Your task to perform on an android device: turn on location history Image 0: 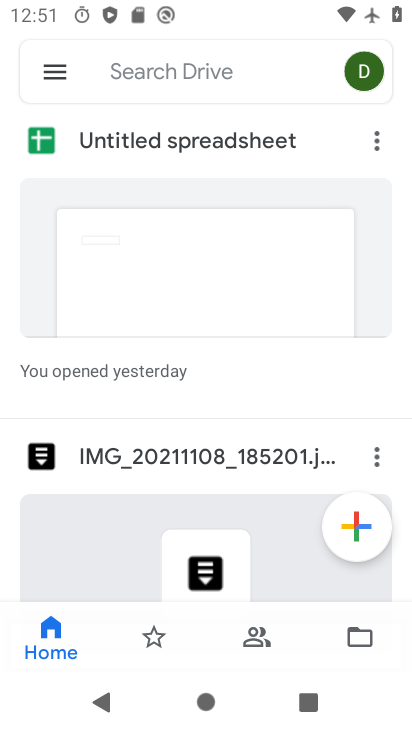
Step 0: press home button
Your task to perform on an android device: turn on location history Image 1: 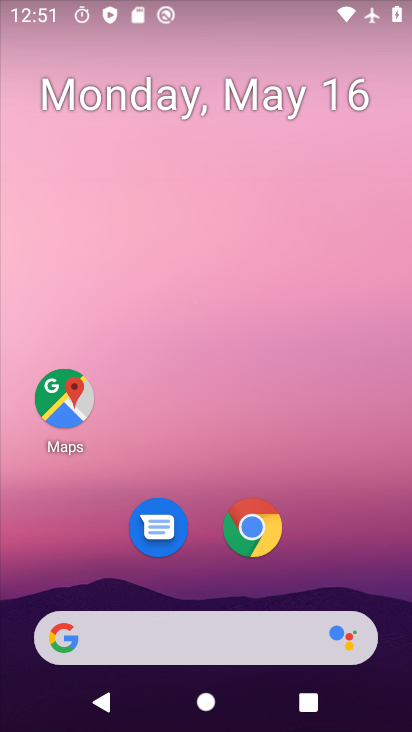
Step 1: drag from (128, 638) to (305, 116)
Your task to perform on an android device: turn on location history Image 2: 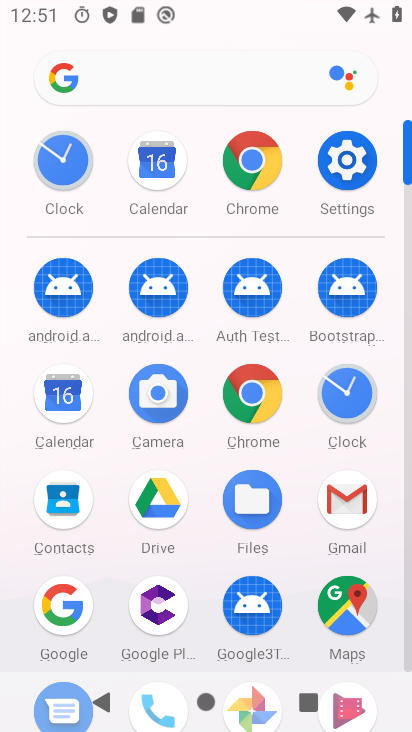
Step 2: click (339, 181)
Your task to perform on an android device: turn on location history Image 3: 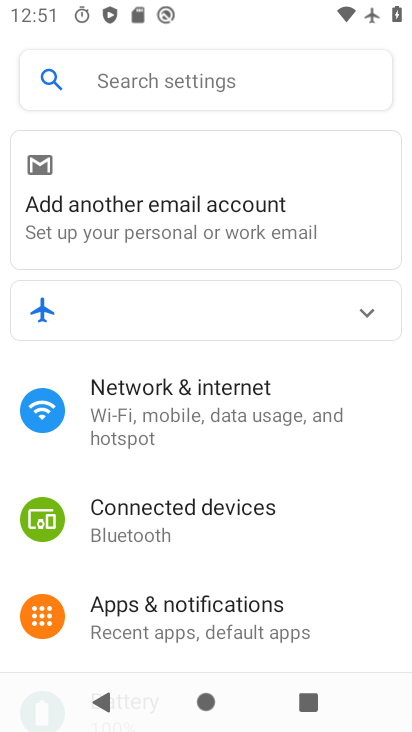
Step 3: drag from (189, 649) to (382, 132)
Your task to perform on an android device: turn on location history Image 4: 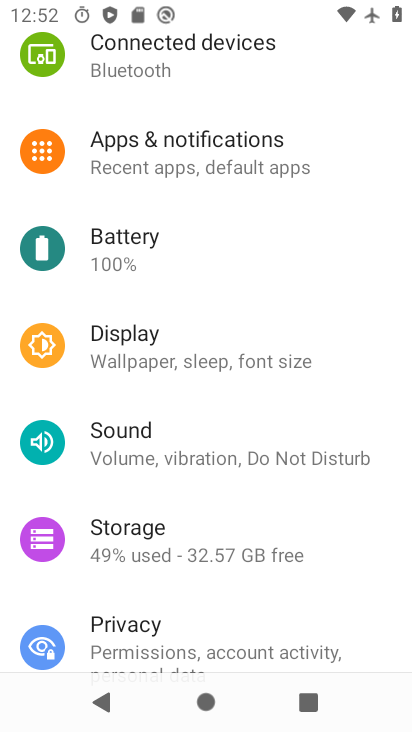
Step 4: drag from (184, 613) to (325, 150)
Your task to perform on an android device: turn on location history Image 5: 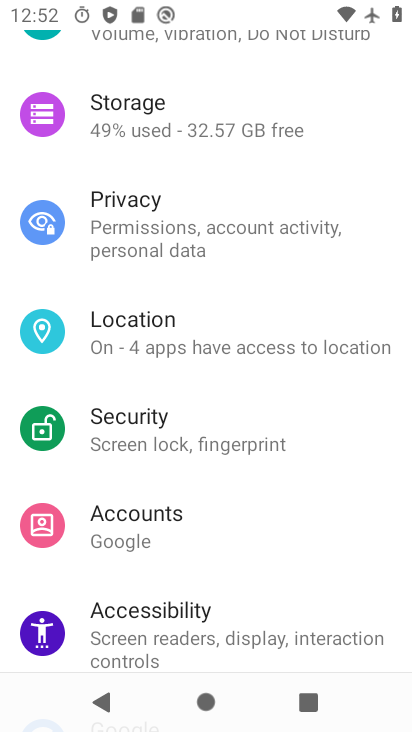
Step 5: click (141, 324)
Your task to perform on an android device: turn on location history Image 6: 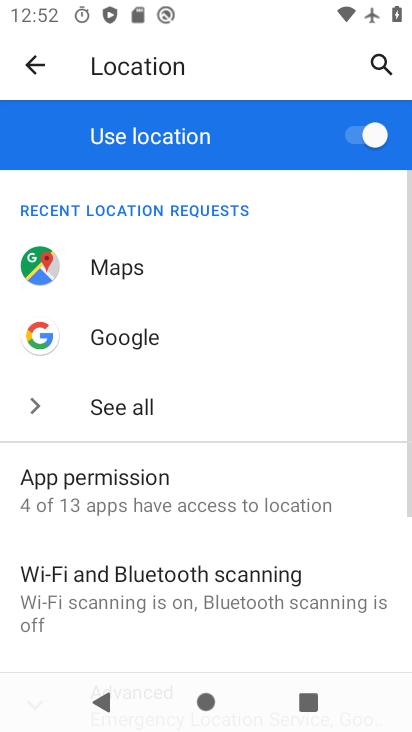
Step 6: drag from (171, 617) to (327, 218)
Your task to perform on an android device: turn on location history Image 7: 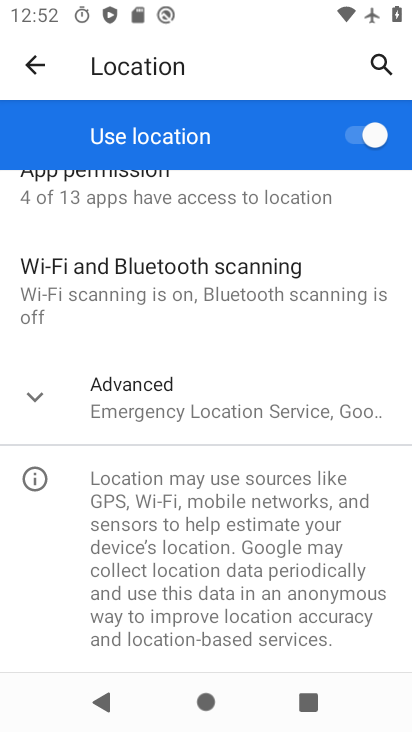
Step 7: click (165, 391)
Your task to perform on an android device: turn on location history Image 8: 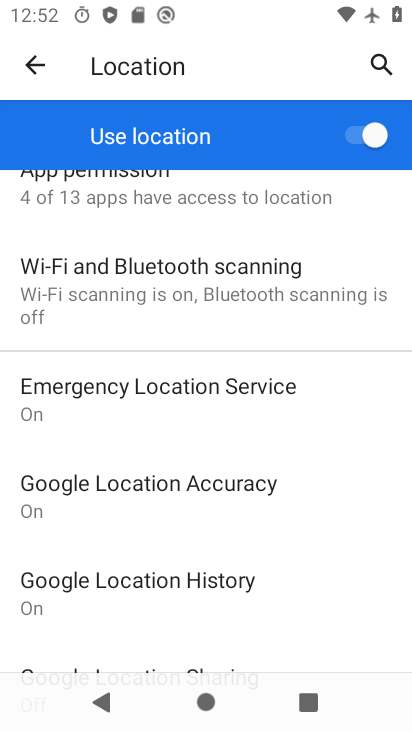
Step 8: click (177, 584)
Your task to perform on an android device: turn on location history Image 9: 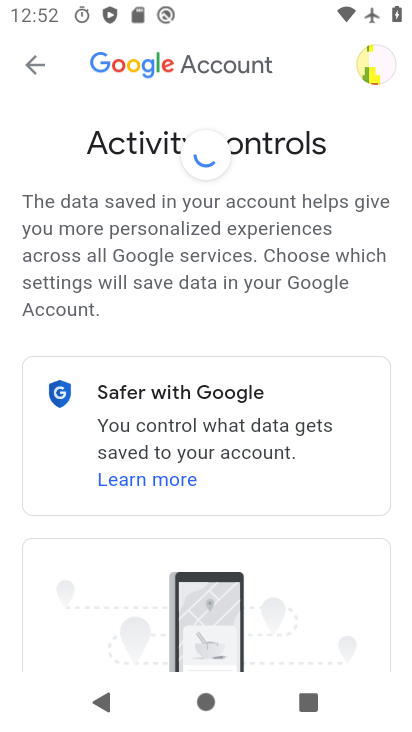
Step 9: drag from (276, 607) to (404, 224)
Your task to perform on an android device: turn on location history Image 10: 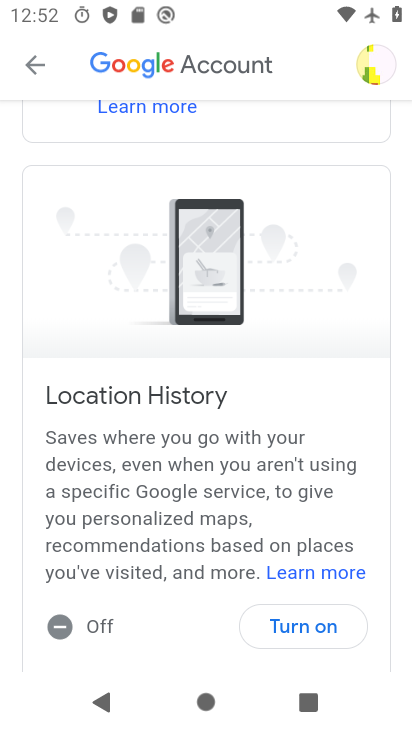
Step 10: click (300, 634)
Your task to perform on an android device: turn on location history Image 11: 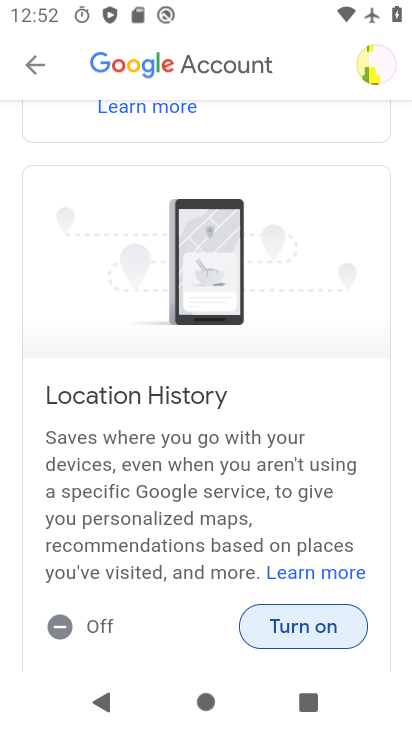
Step 11: click (314, 626)
Your task to perform on an android device: turn on location history Image 12: 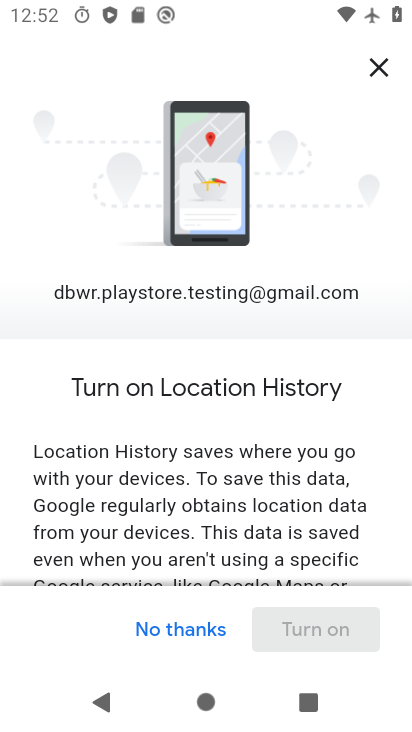
Step 12: drag from (223, 525) to (371, 175)
Your task to perform on an android device: turn on location history Image 13: 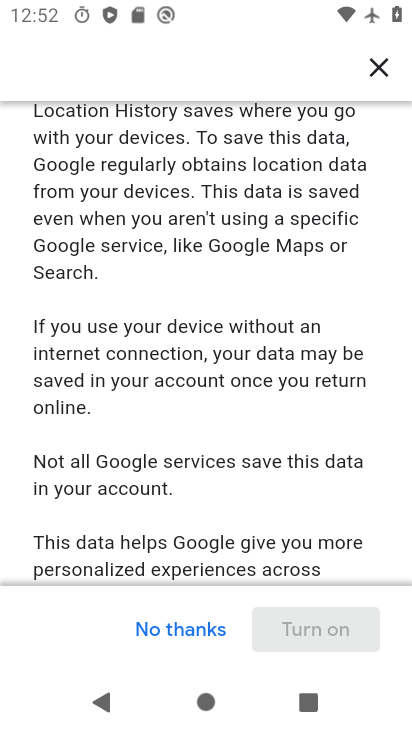
Step 13: drag from (223, 548) to (361, 133)
Your task to perform on an android device: turn on location history Image 14: 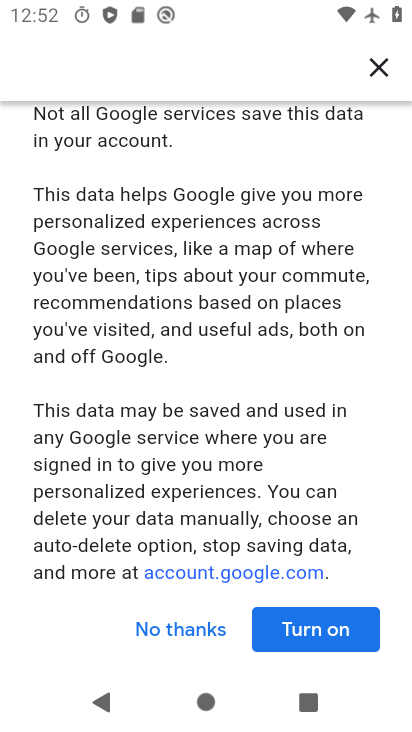
Step 14: click (322, 641)
Your task to perform on an android device: turn on location history Image 15: 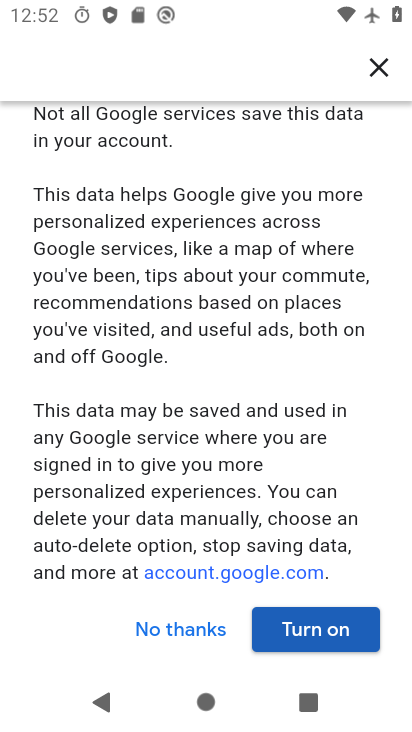
Step 15: click (322, 628)
Your task to perform on an android device: turn on location history Image 16: 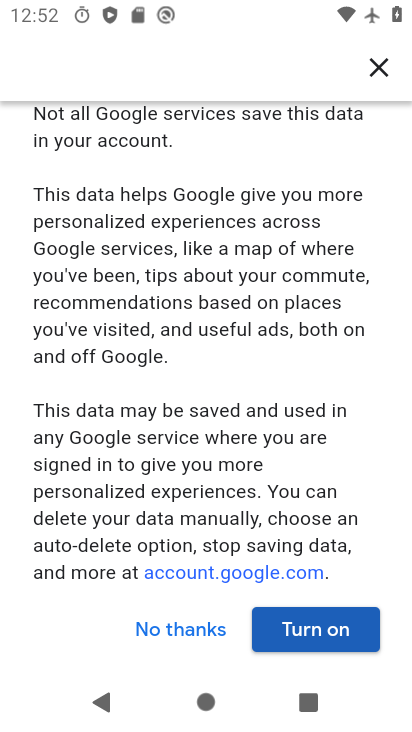
Step 16: click (310, 633)
Your task to perform on an android device: turn on location history Image 17: 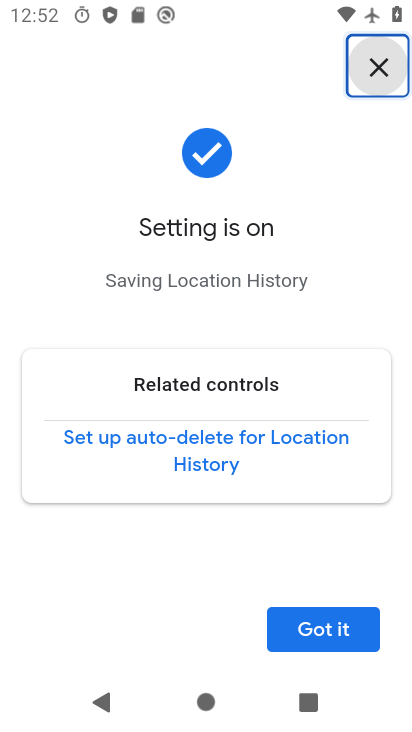
Step 17: click (328, 629)
Your task to perform on an android device: turn on location history Image 18: 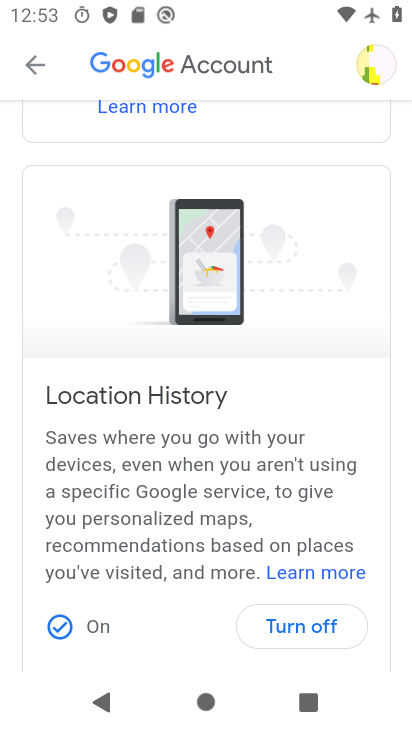
Step 18: task complete